Your task to perform on an android device: toggle pop-ups in chrome Image 0: 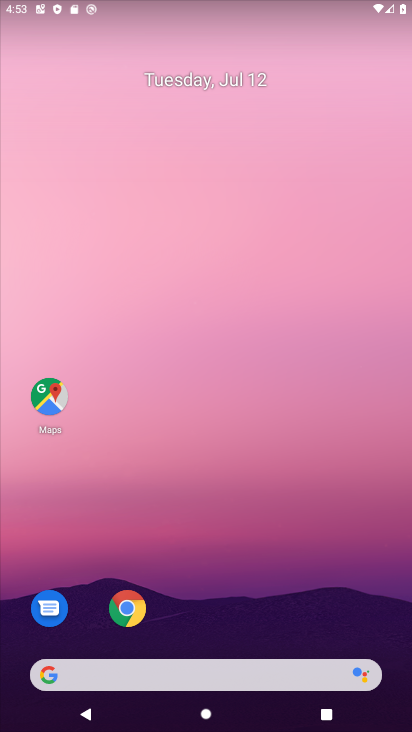
Step 0: click (124, 601)
Your task to perform on an android device: toggle pop-ups in chrome Image 1: 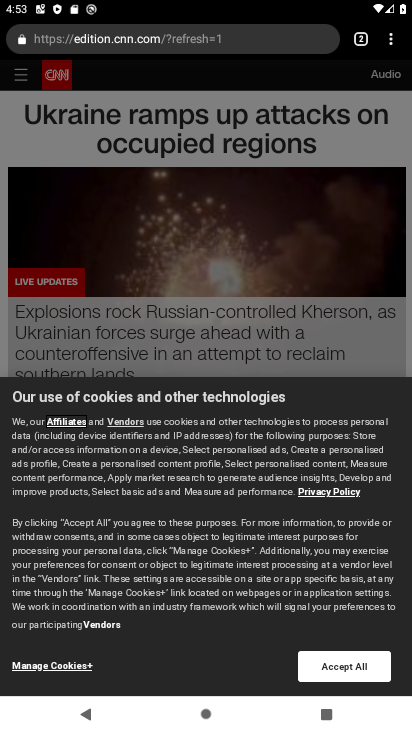
Step 1: click (396, 35)
Your task to perform on an android device: toggle pop-ups in chrome Image 2: 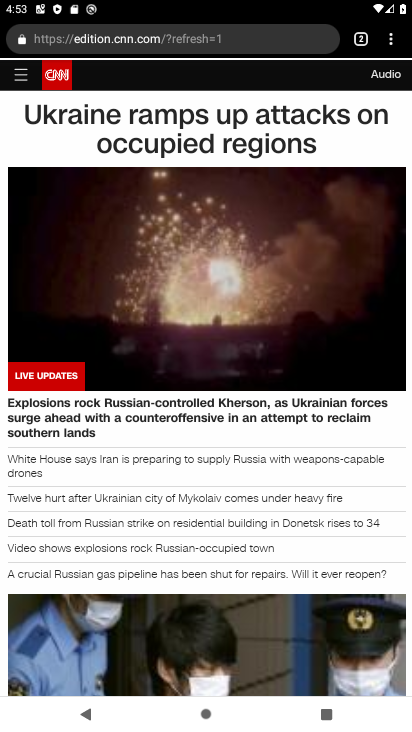
Step 2: click (397, 44)
Your task to perform on an android device: toggle pop-ups in chrome Image 3: 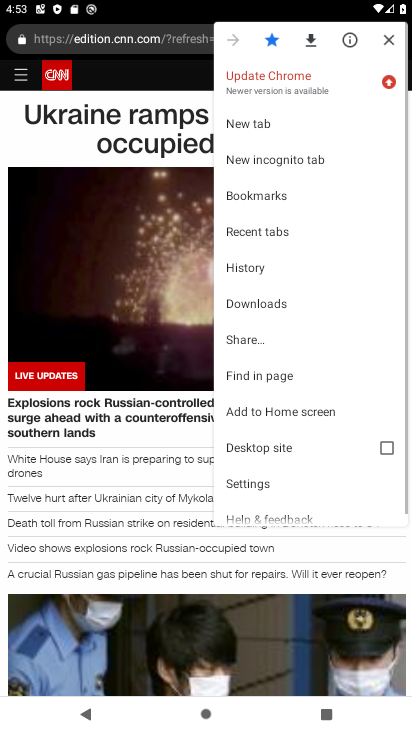
Step 3: click (401, 49)
Your task to perform on an android device: toggle pop-ups in chrome Image 4: 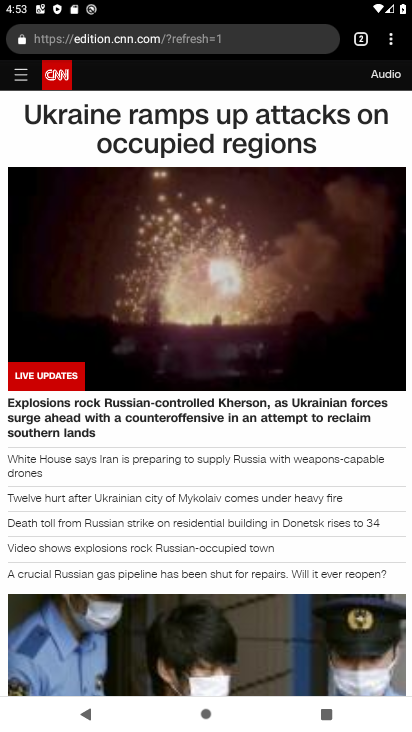
Step 4: click (383, 33)
Your task to perform on an android device: toggle pop-ups in chrome Image 5: 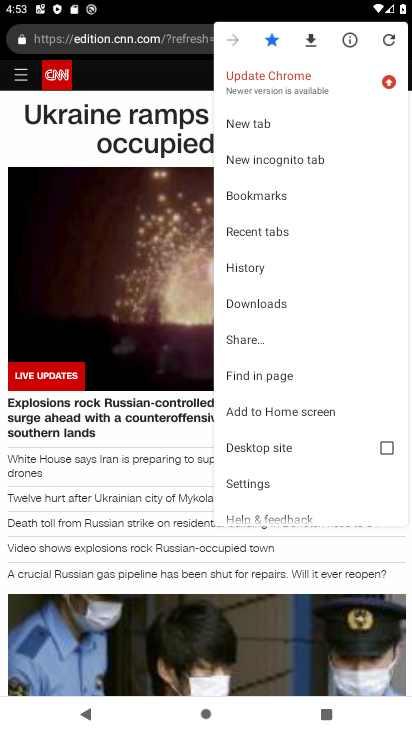
Step 5: click (249, 484)
Your task to perform on an android device: toggle pop-ups in chrome Image 6: 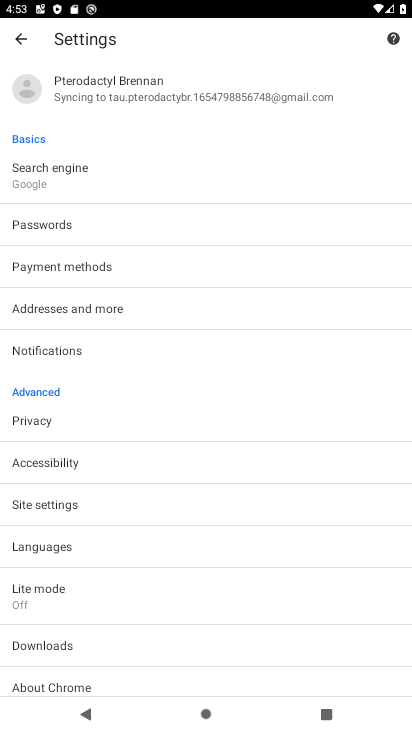
Step 6: drag from (83, 662) to (122, 103)
Your task to perform on an android device: toggle pop-ups in chrome Image 7: 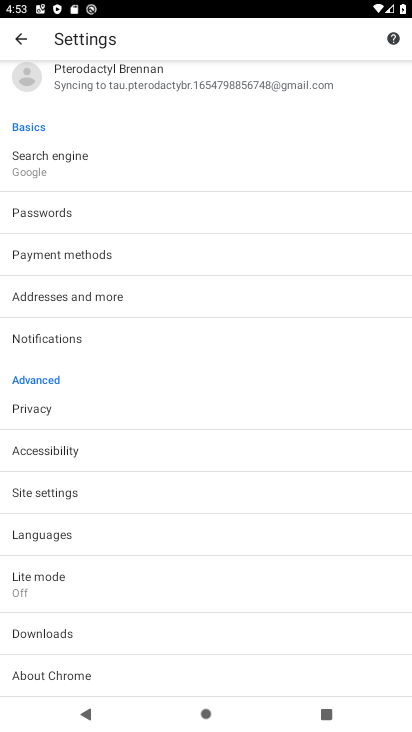
Step 7: drag from (129, 605) to (132, 220)
Your task to perform on an android device: toggle pop-ups in chrome Image 8: 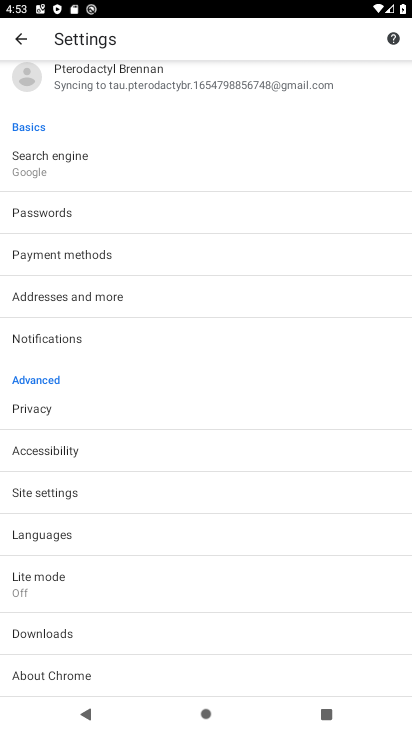
Step 8: drag from (90, 635) to (204, 119)
Your task to perform on an android device: toggle pop-ups in chrome Image 9: 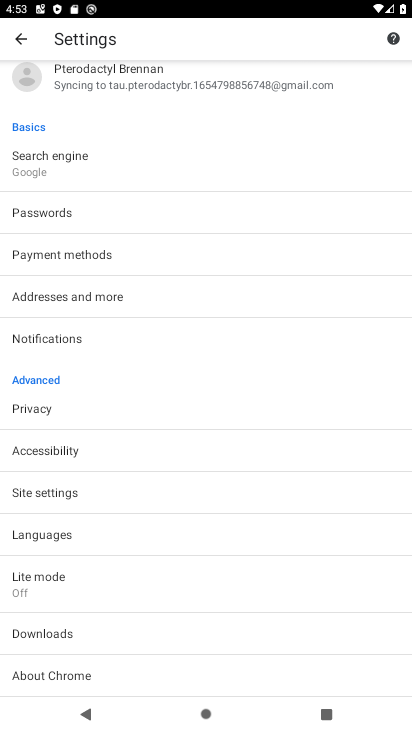
Step 9: drag from (144, 606) to (252, 26)
Your task to perform on an android device: toggle pop-ups in chrome Image 10: 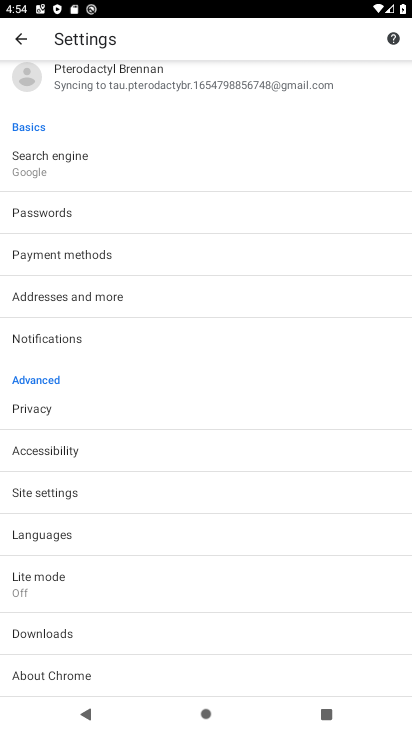
Step 10: drag from (143, 648) to (168, 244)
Your task to perform on an android device: toggle pop-ups in chrome Image 11: 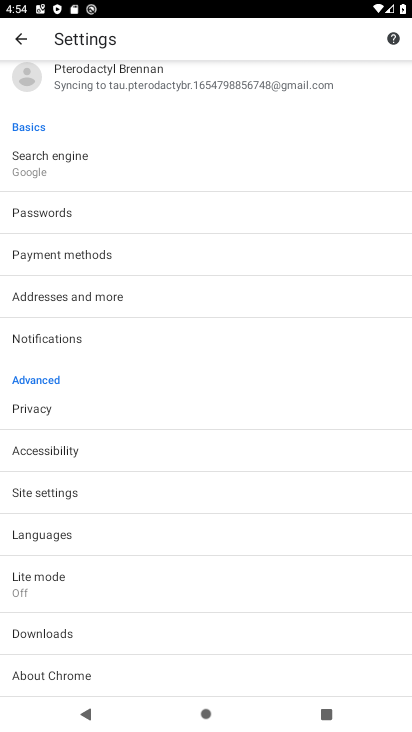
Step 11: drag from (139, 673) to (163, 256)
Your task to perform on an android device: toggle pop-ups in chrome Image 12: 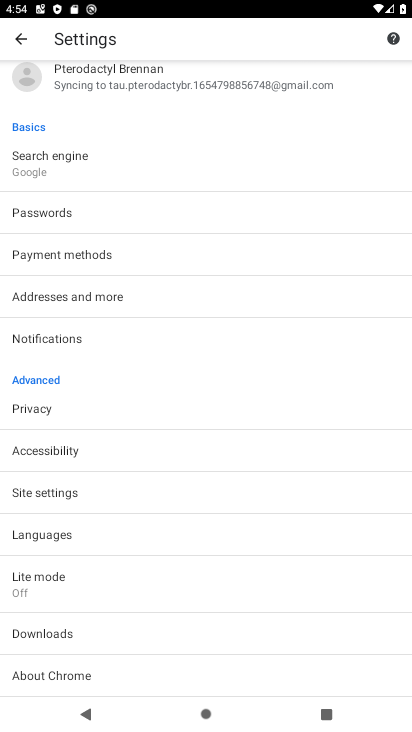
Step 12: click (57, 499)
Your task to perform on an android device: toggle pop-ups in chrome Image 13: 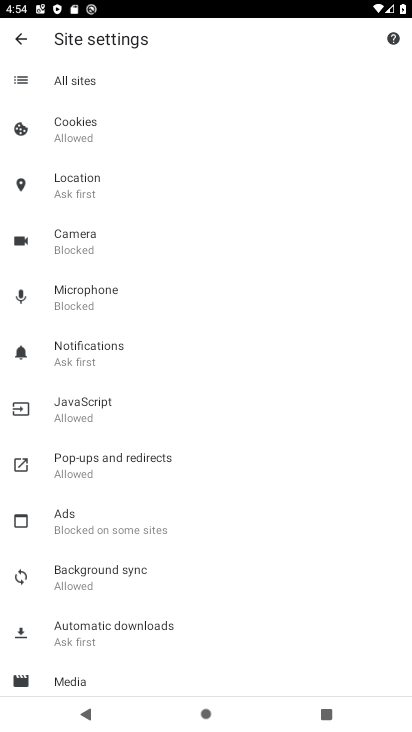
Step 13: click (158, 466)
Your task to perform on an android device: toggle pop-ups in chrome Image 14: 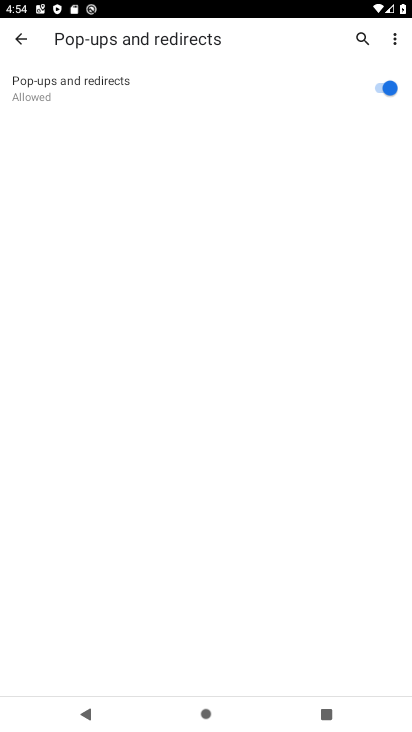
Step 14: click (381, 87)
Your task to perform on an android device: toggle pop-ups in chrome Image 15: 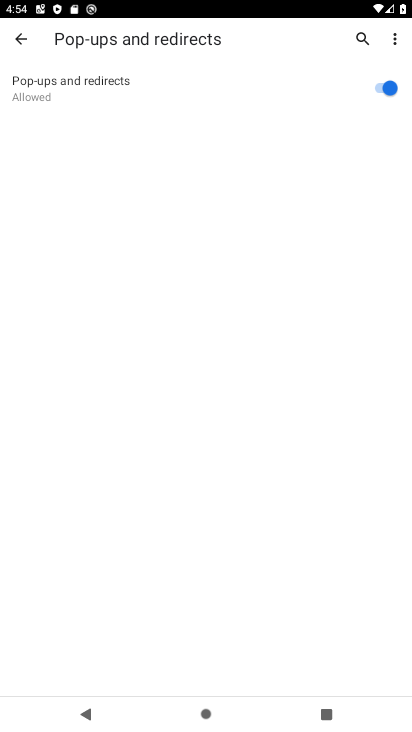
Step 15: click (381, 87)
Your task to perform on an android device: toggle pop-ups in chrome Image 16: 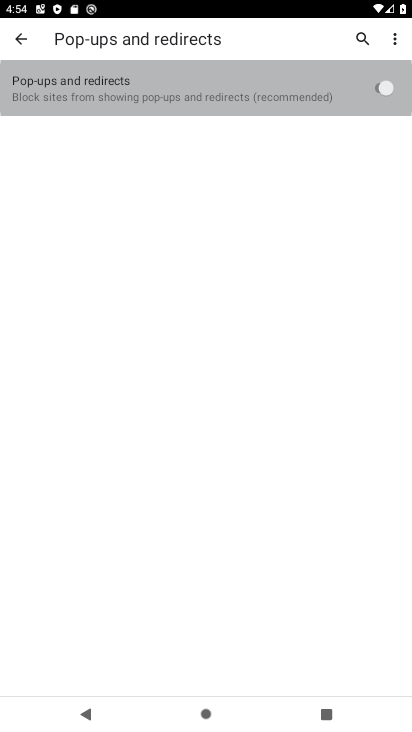
Step 16: click (381, 87)
Your task to perform on an android device: toggle pop-ups in chrome Image 17: 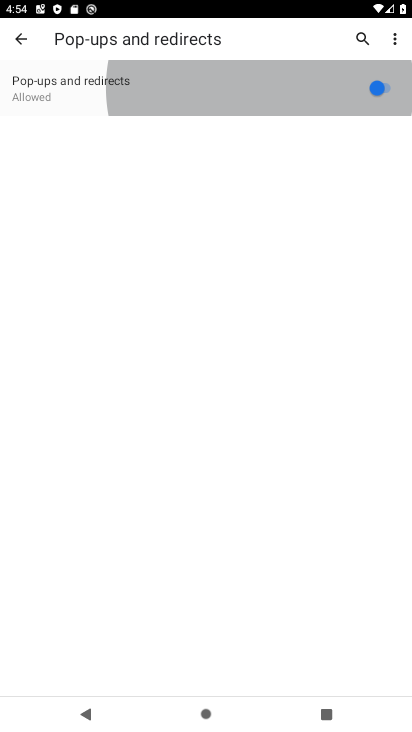
Step 17: click (381, 87)
Your task to perform on an android device: toggle pop-ups in chrome Image 18: 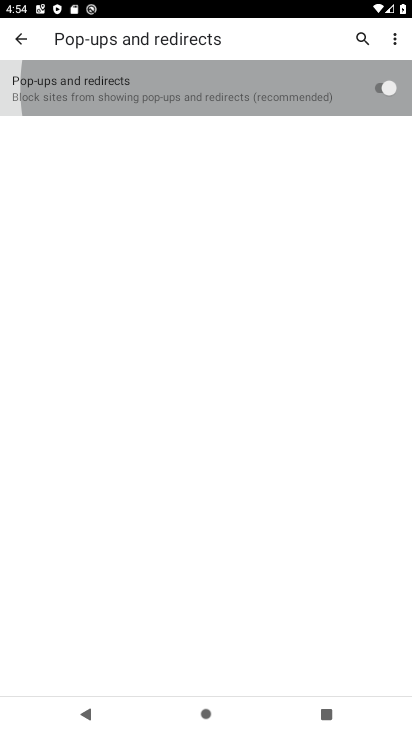
Step 18: click (381, 87)
Your task to perform on an android device: toggle pop-ups in chrome Image 19: 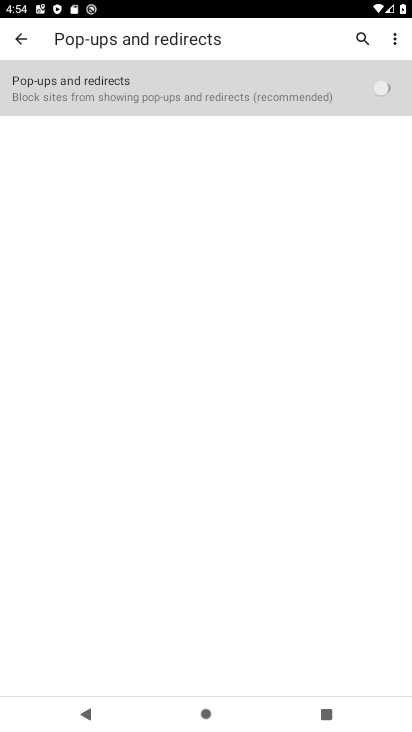
Step 19: click (381, 87)
Your task to perform on an android device: toggle pop-ups in chrome Image 20: 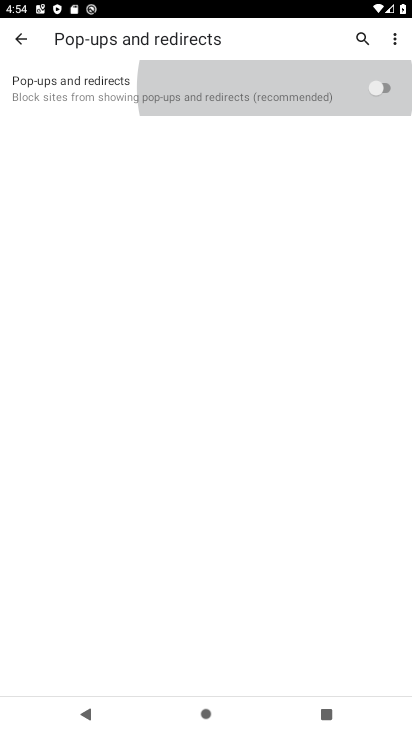
Step 20: click (381, 87)
Your task to perform on an android device: toggle pop-ups in chrome Image 21: 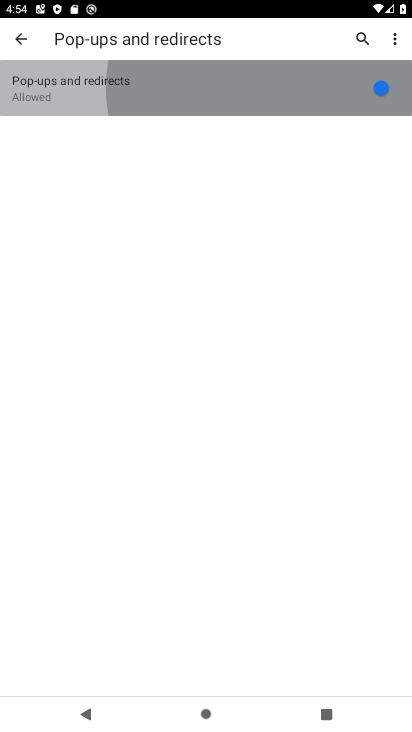
Step 21: click (381, 87)
Your task to perform on an android device: toggle pop-ups in chrome Image 22: 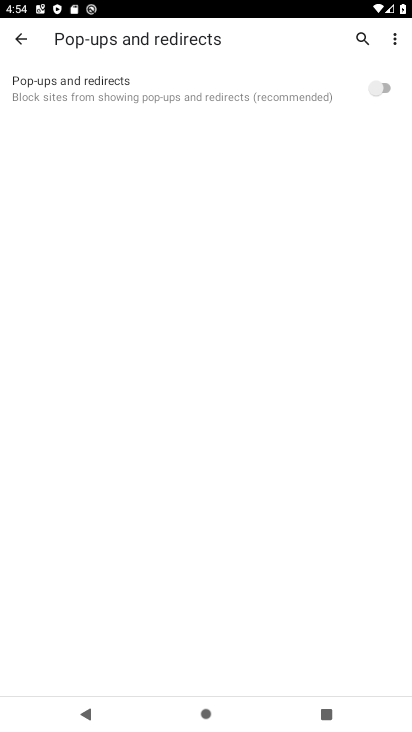
Step 22: task complete